Your task to perform on an android device: What's a good restaurant in New Jersey? Image 0: 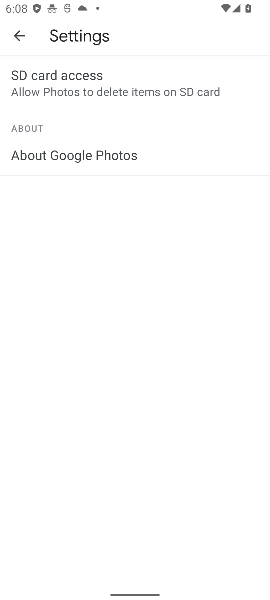
Step 0: press home button
Your task to perform on an android device: What's a good restaurant in New Jersey? Image 1: 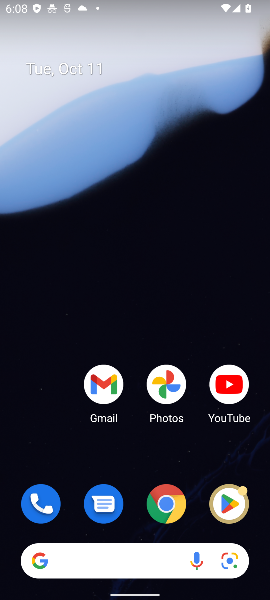
Step 1: click (74, 568)
Your task to perform on an android device: What's a good restaurant in New Jersey? Image 2: 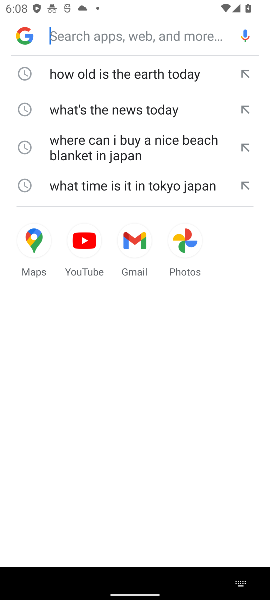
Step 2: click (98, 38)
Your task to perform on an android device: What's a good restaurant in New Jersey? Image 3: 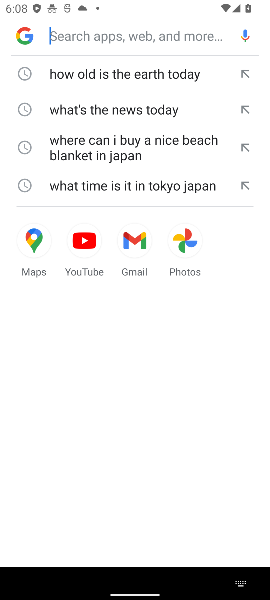
Step 3: type "What's a good restaurant in New Jersey?"
Your task to perform on an android device: What's a good restaurant in New Jersey? Image 4: 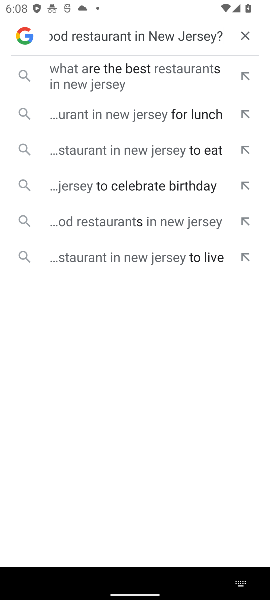
Step 4: click (138, 79)
Your task to perform on an android device: What's a good restaurant in New Jersey? Image 5: 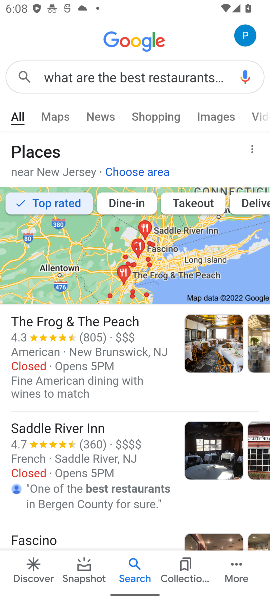
Step 5: task complete